Your task to perform on an android device: Do I have any events today? Image 0: 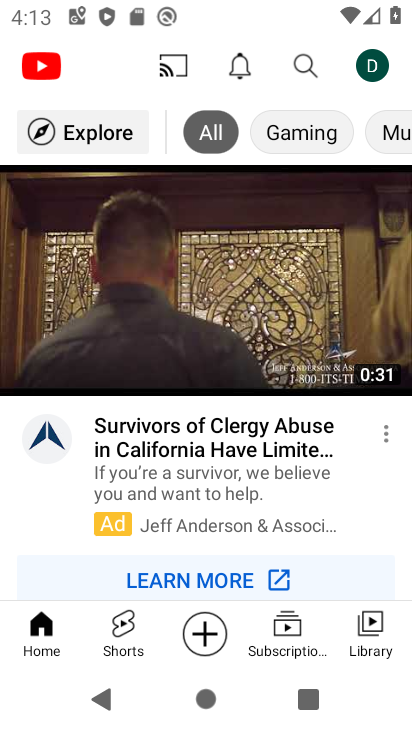
Step 0: press home button
Your task to perform on an android device: Do I have any events today? Image 1: 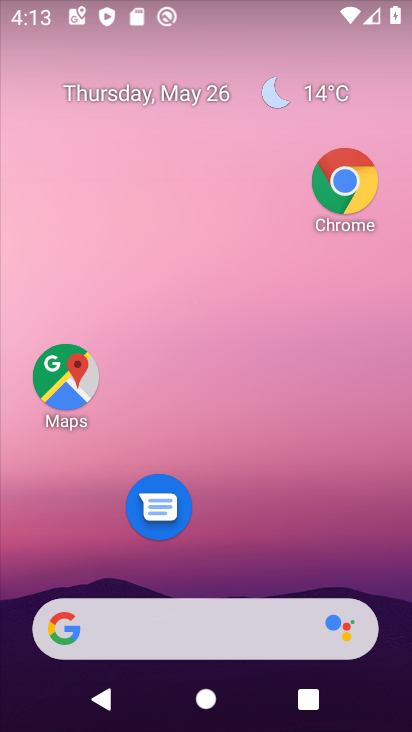
Step 1: drag from (223, 574) to (212, 39)
Your task to perform on an android device: Do I have any events today? Image 2: 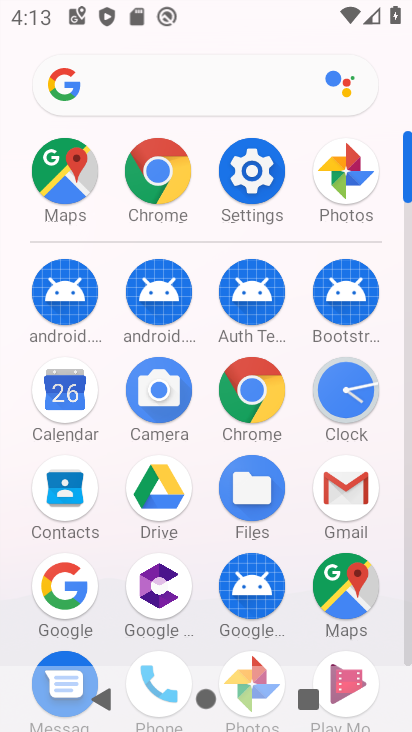
Step 2: click (70, 379)
Your task to perform on an android device: Do I have any events today? Image 3: 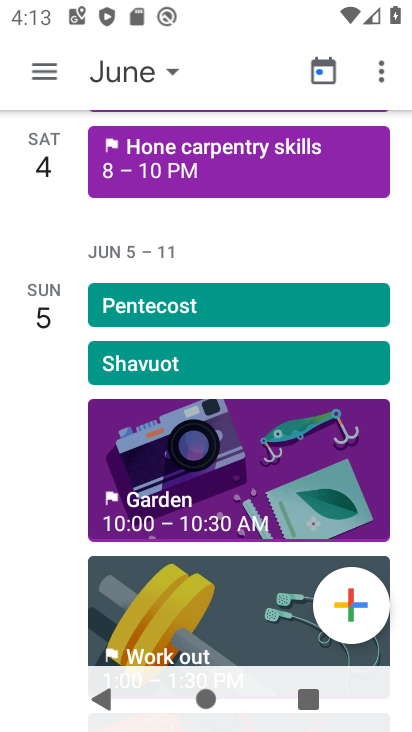
Step 3: click (116, 62)
Your task to perform on an android device: Do I have any events today? Image 4: 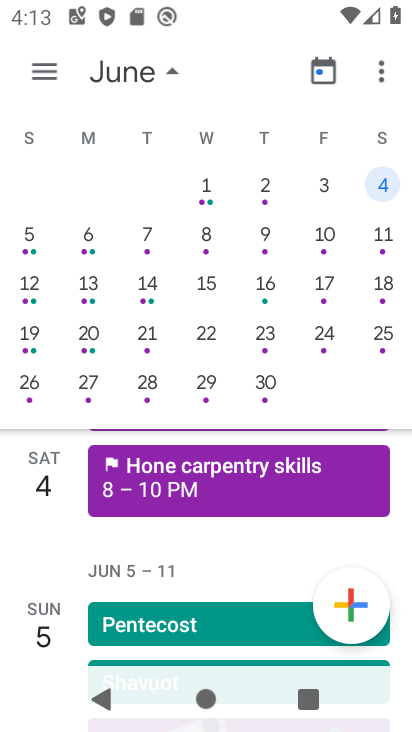
Step 4: drag from (61, 264) to (356, 261)
Your task to perform on an android device: Do I have any events today? Image 5: 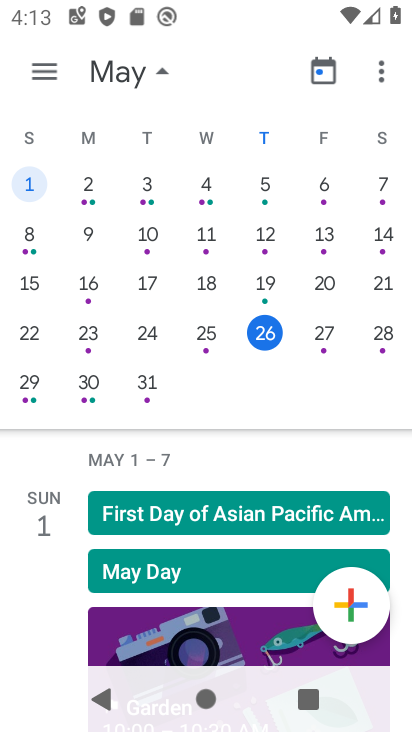
Step 5: click (269, 327)
Your task to perform on an android device: Do I have any events today? Image 6: 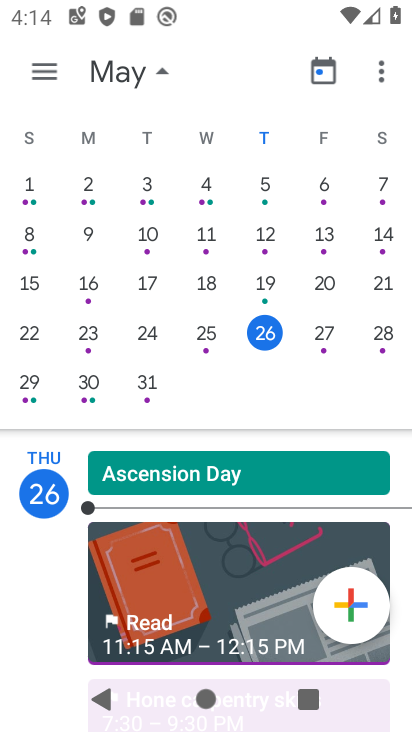
Step 6: task complete